Your task to perform on an android device: change text size in settings app Image 0: 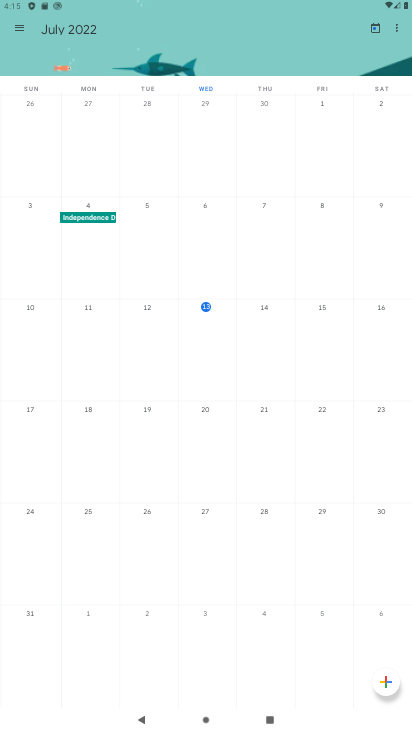
Step 0: press home button
Your task to perform on an android device: change text size in settings app Image 1: 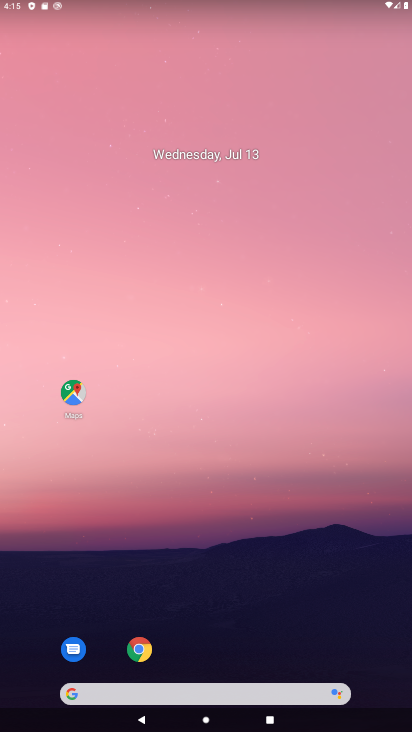
Step 1: drag from (247, 639) to (238, 98)
Your task to perform on an android device: change text size in settings app Image 2: 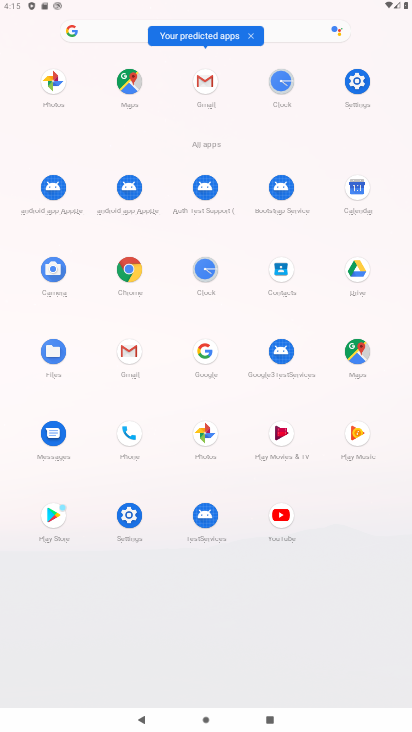
Step 2: click (366, 75)
Your task to perform on an android device: change text size in settings app Image 3: 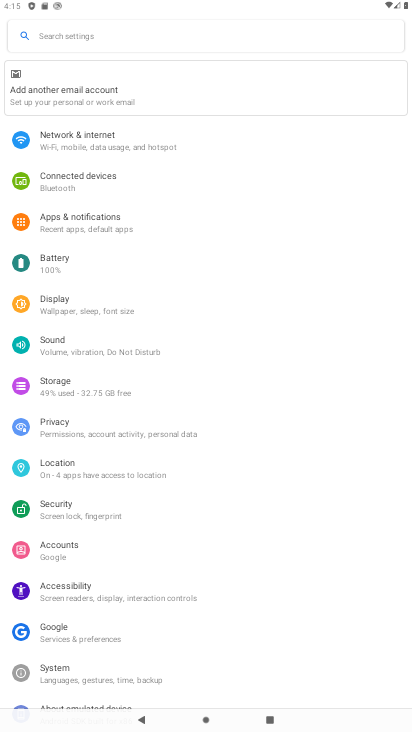
Step 3: click (98, 311)
Your task to perform on an android device: change text size in settings app Image 4: 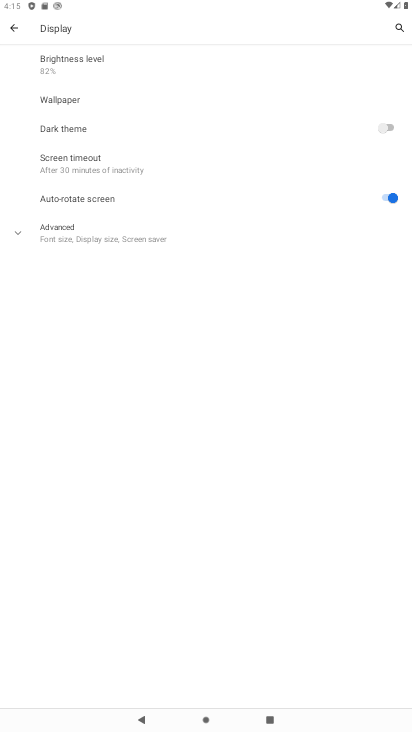
Step 4: click (91, 246)
Your task to perform on an android device: change text size in settings app Image 5: 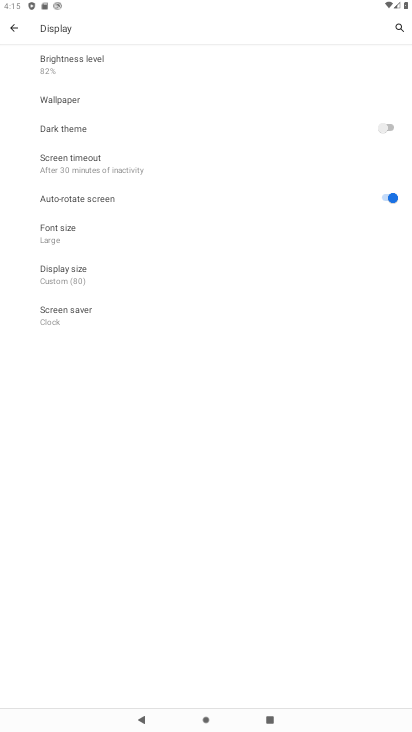
Step 5: click (59, 238)
Your task to perform on an android device: change text size in settings app Image 6: 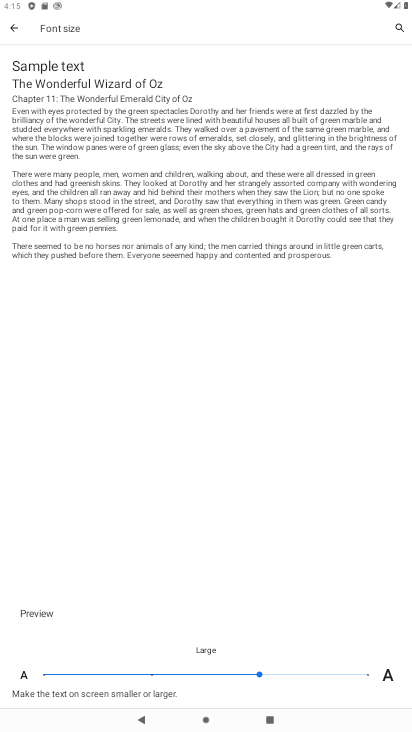
Step 6: click (224, 679)
Your task to perform on an android device: change text size in settings app Image 7: 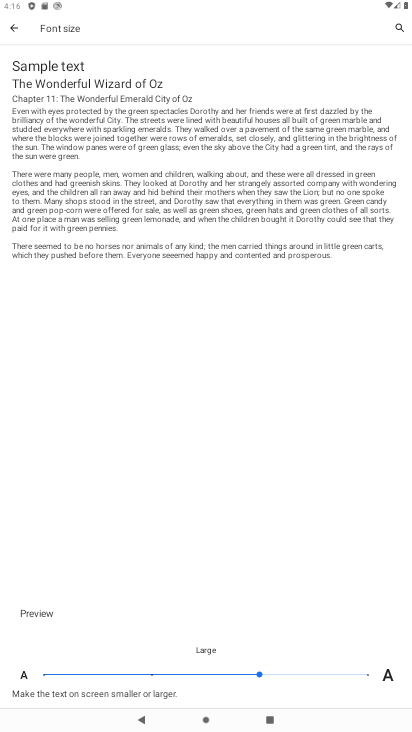
Step 7: click (217, 659)
Your task to perform on an android device: change text size in settings app Image 8: 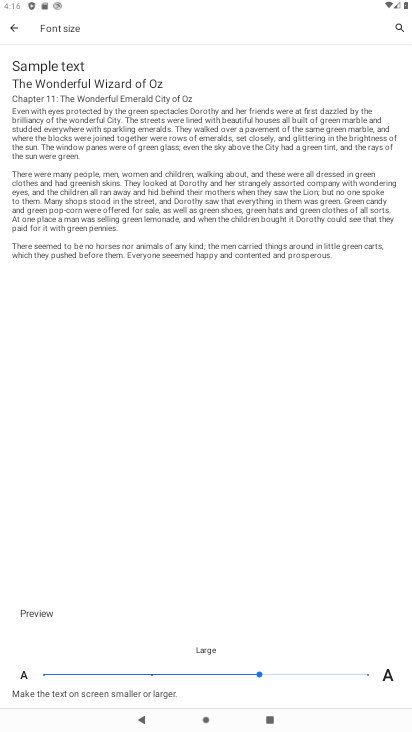
Step 8: click (226, 669)
Your task to perform on an android device: change text size in settings app Image 9: 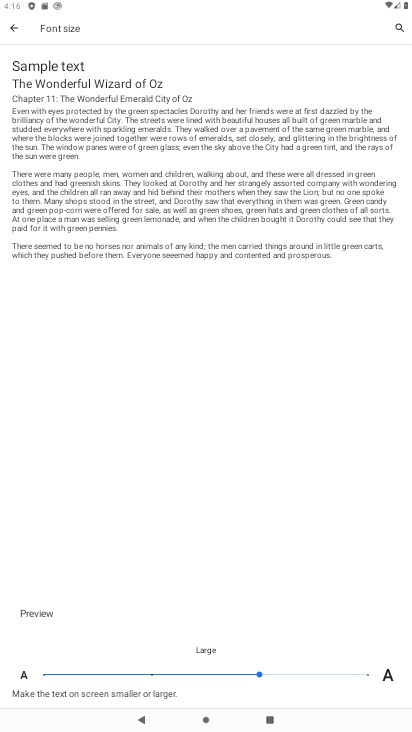
Step 9: drag from (261, 673) to (212, 665)
Your task to perform on an android device: change text size in settings app Image 10: 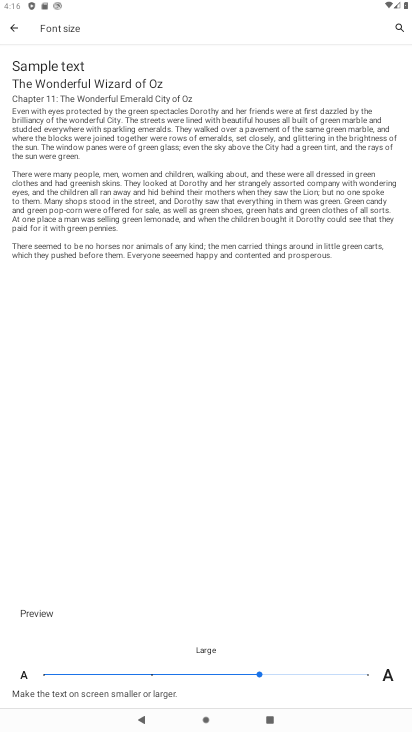
Step 10: click (291, 671)
Your task to perform on an android device: change text size in settings app Image 11: 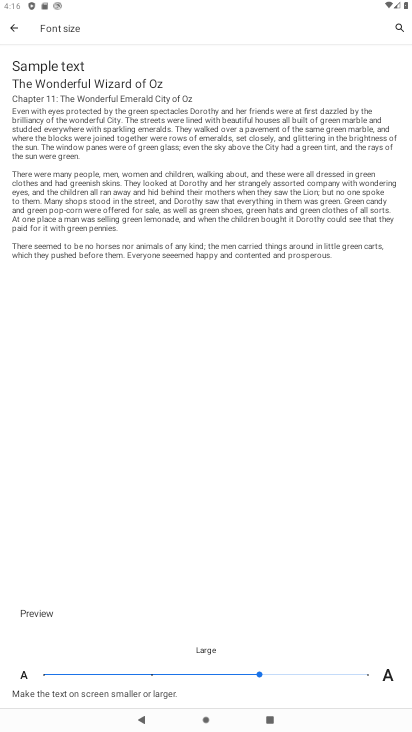
Step 11: click (291, 671)
Your task to perform on an android device: change text size in settings app Image 12: 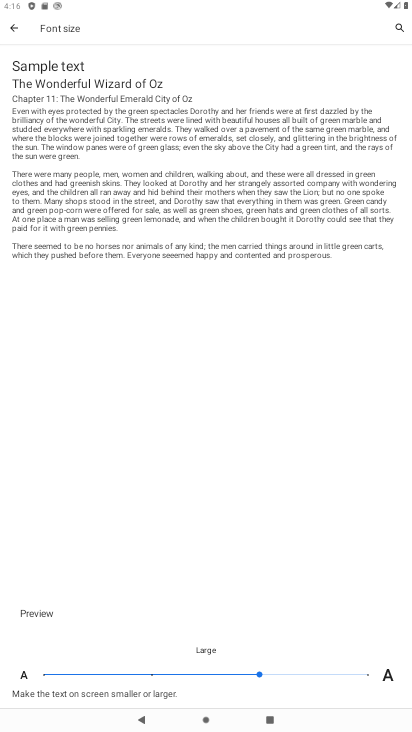
Step 12: click (291, 670)
Your task to perform on an android device: change text size in settings app Image 13: 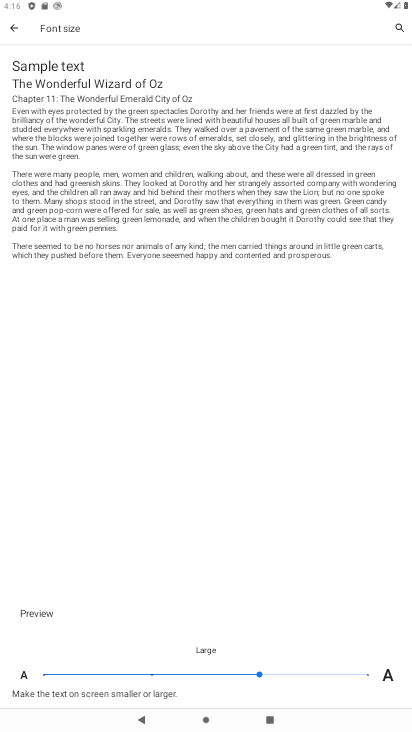
Step 13: drag from (257, 670) to (292, 672)
Your task to perform on an android device: change text size in settings app Image 14: 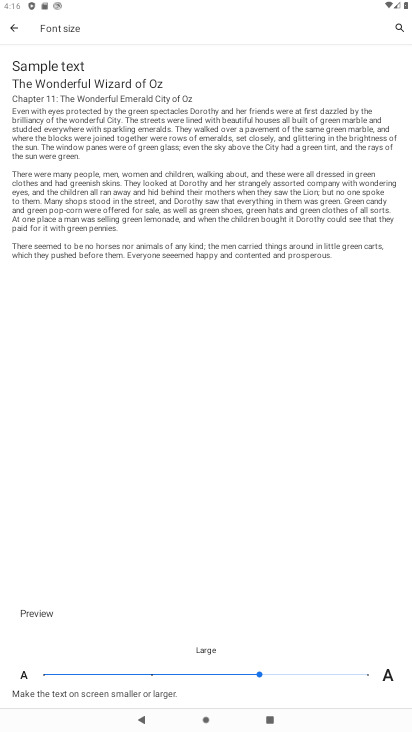
Step 14: click (288, 669)
Your task to perform on an android device: change text size in settings app Image 15: 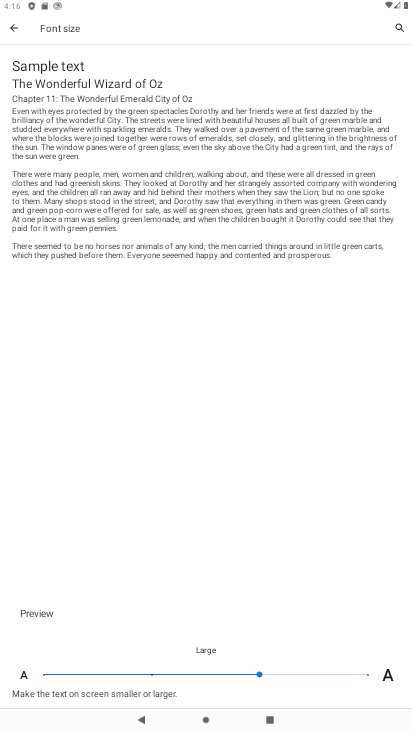
Step 15: click (344, 675)
Your task to perform on an android device: change text size in settings app Image 16: 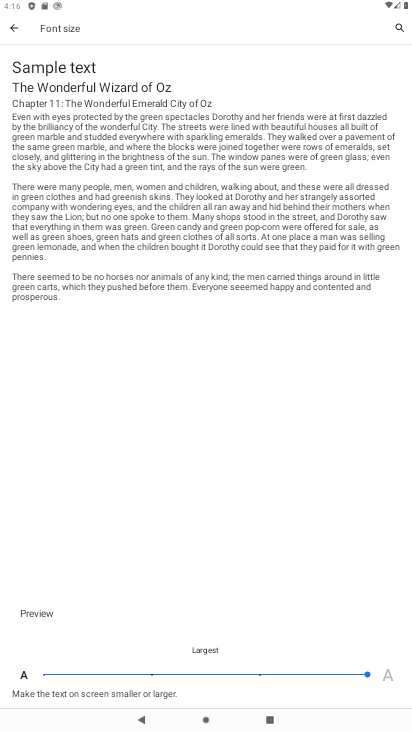
Step 16: click (345, 675)
Your task to perform on an android device: change text size in settings app Image 17: 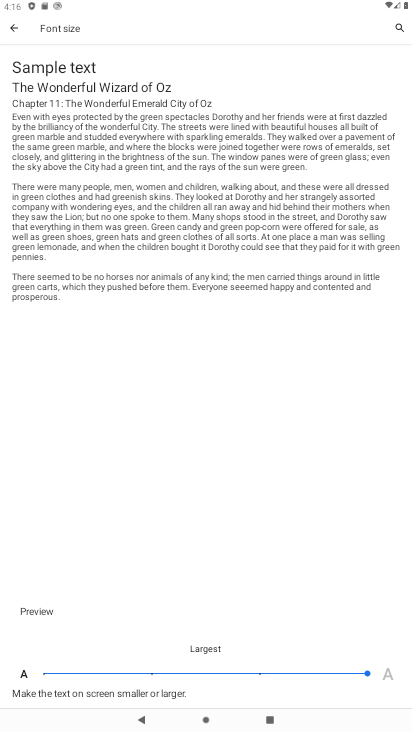
Step 17: task complete